Your task to perform on an android device: move an email to a new category in the gmail app Image 0: 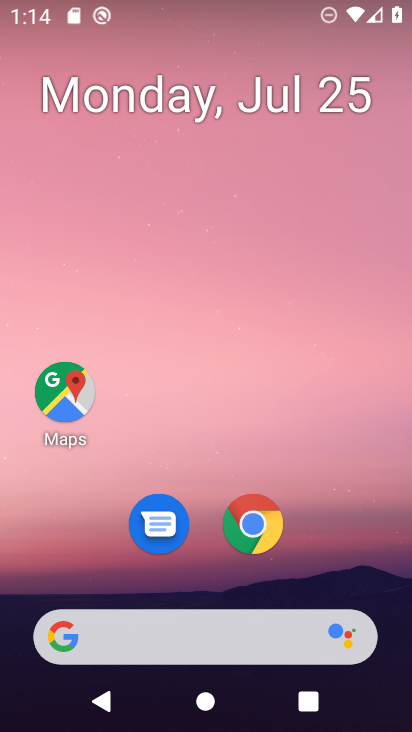
Step 0: drag from (151, 633) to (314, 147)
Your task to perform on an android device: move an email to a new category in the gmail app Image 1: 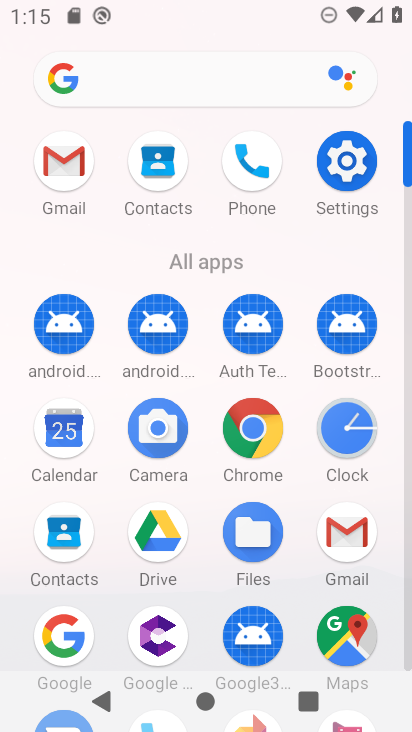
Step 1: click (74, 167)
Your task to perform on an android device: move an email to a new category in the gmail app Image 2: 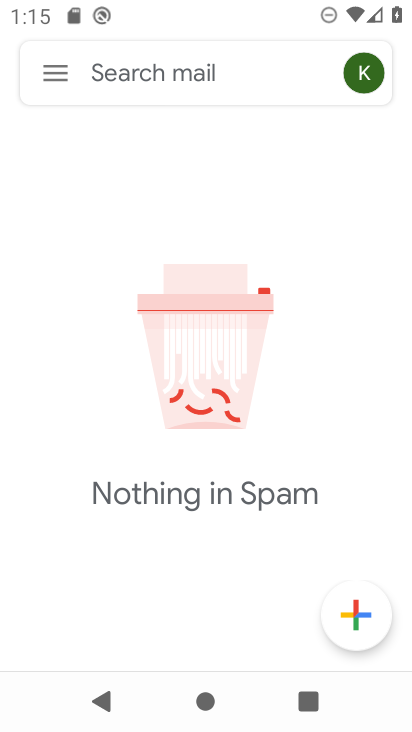
Step 2: click (56, 73)
Your task to perform on an android device: move an email to a new category in the gmail app Image 3: 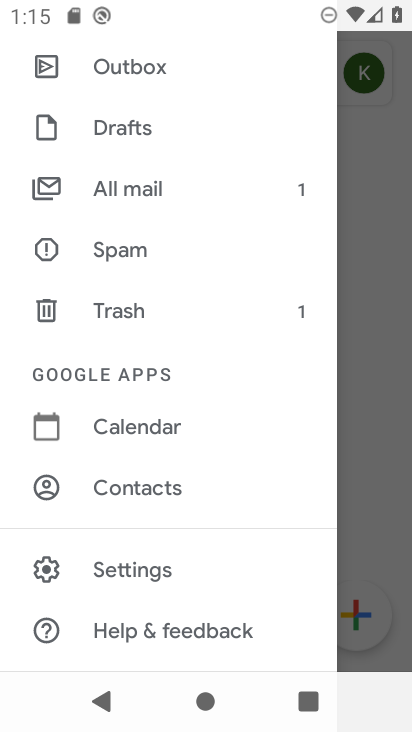
Step 3: click (157, 194)
Your task to perform on an android device: move an email to a new category in the gmail app Image 4: 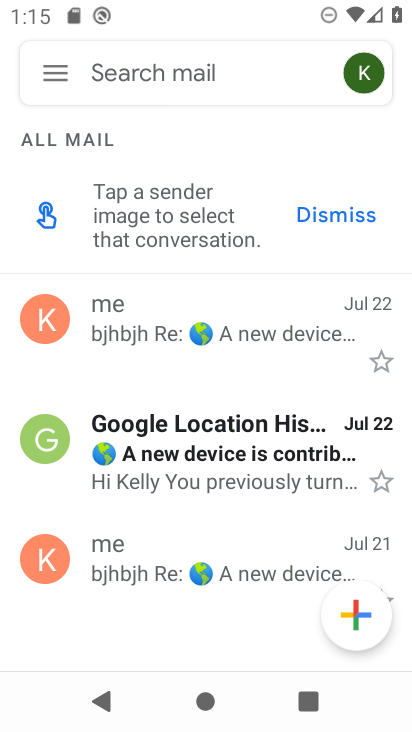
Step 4: click (51, 321)
Your task to perform on an android device: move an email to a new category in the gmail app Image 5: 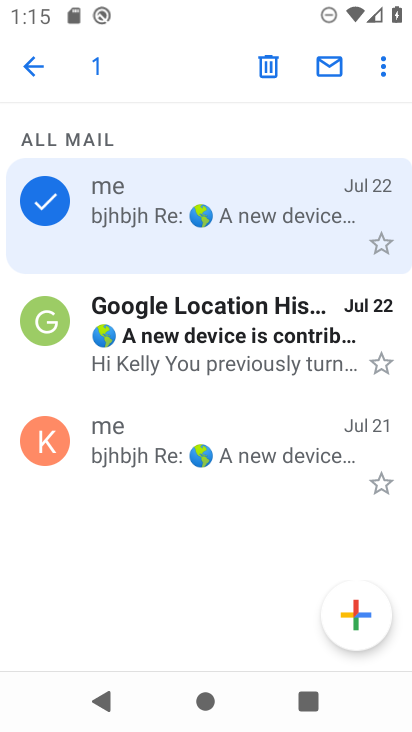
Step 5: click (377, 67)
Your task to perform on an android device: move an email to a new category in the gmail app Image 6: 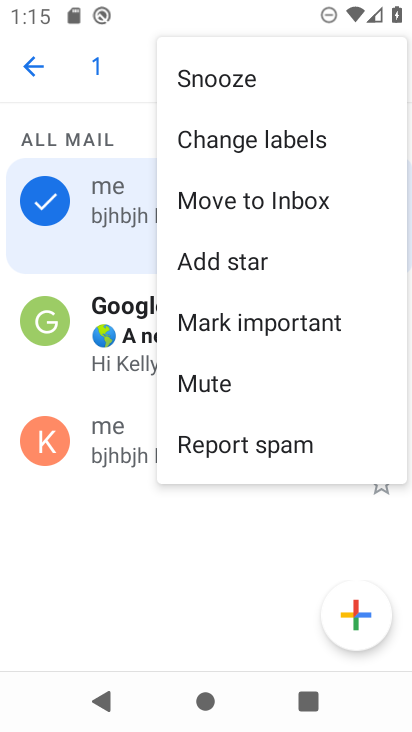
Step 6: click (298, 203)
Your task to perform on an android device: move an email to a new category in the gmail app Image 7: 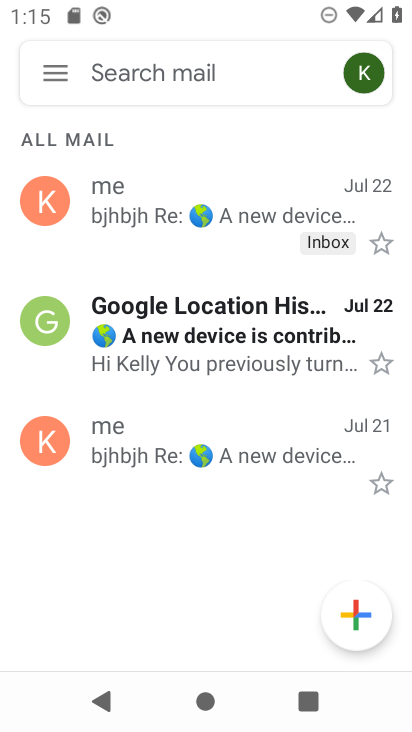
Step 7: task complete